Your task to perform on an android device: check android version Image 0: 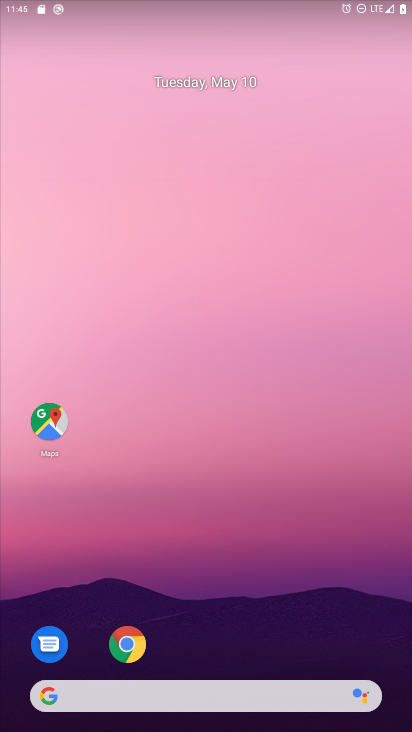
Step 0: drag from (235, 579) to (266, 137)
Your task to perform on an android device: check android version Image 1: 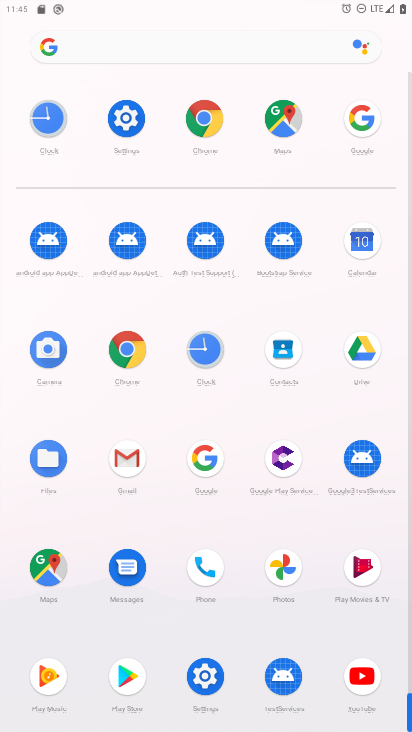
Step 1: click (124, 125)
Your task to perform on an android device: check android version Image 2: 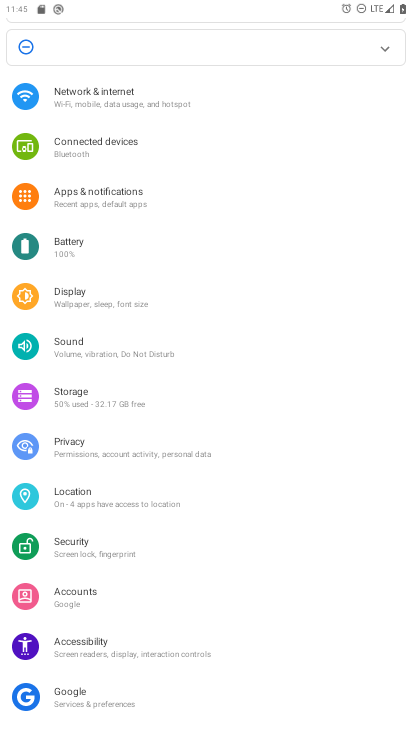
Step 2: drag from (204, 560) to (228, 307)
Your task to perform on an android device: check android version Image 3: 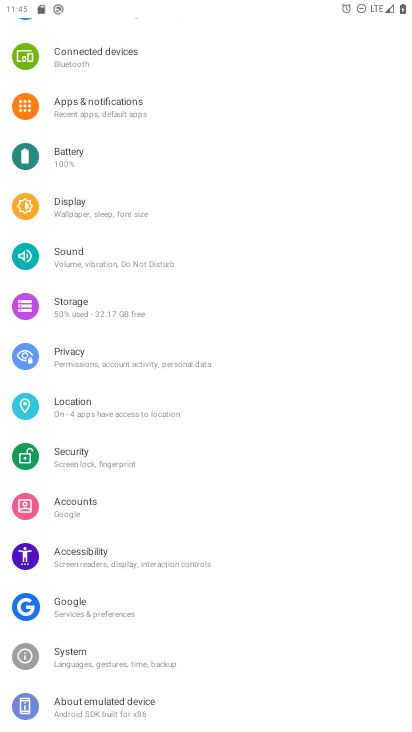
Step 3: drag from (173, 533) to (210, 297)
Your task to perform on an android device: check android version Image 4: 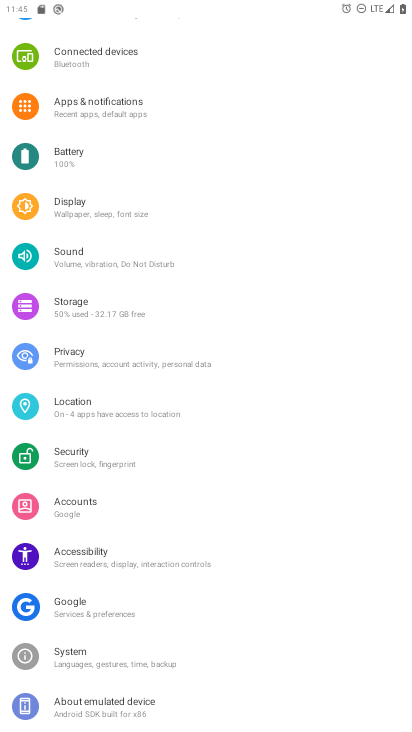
Step 4: click (201, 710)
Your task to perform on an android device: check android version Image 5: 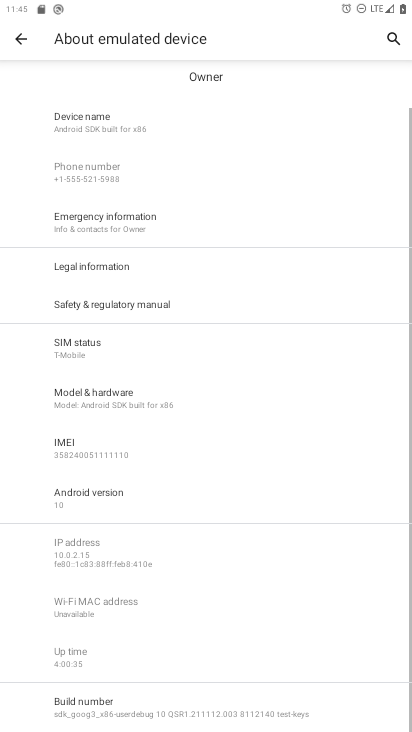
Step 5: click (218, 502)
Your task to perform on an android device: check android version Image 6: 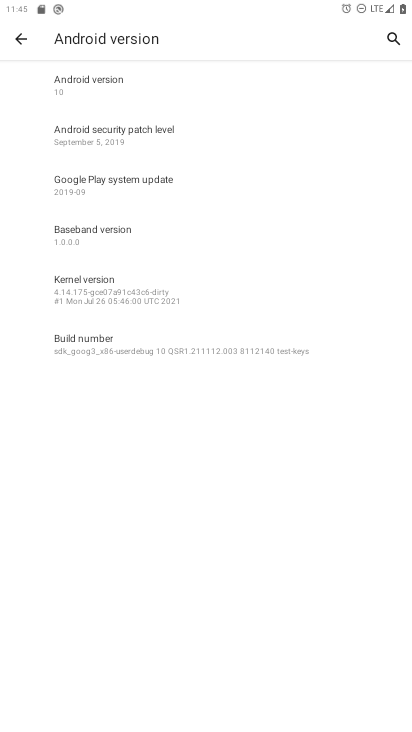
Step 6: task complete